Your task to perform on an android device: Play the last video I watched on Youtube Image 0: 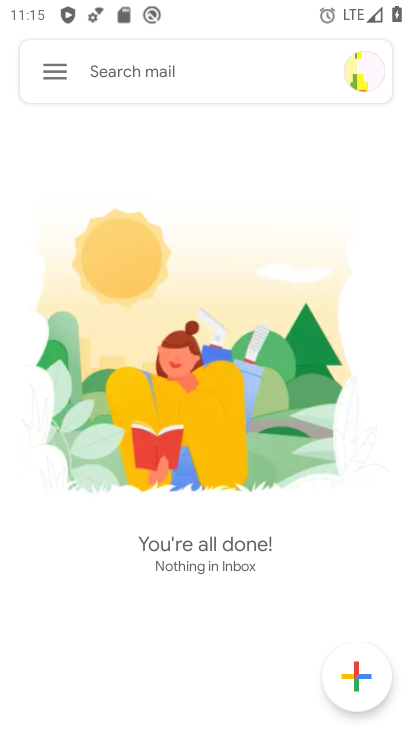
Step 0: press home button
Your task to perform on an android device: Play the last video I watched on Youtube Image 1: 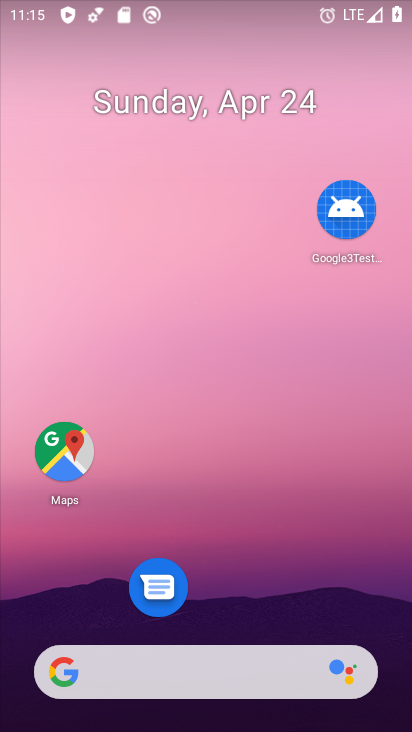
Step 1: drag from (361, 573) to (238, 32)
Your task to perform on an android device: Play the last video I watched on Youtube Image 2: 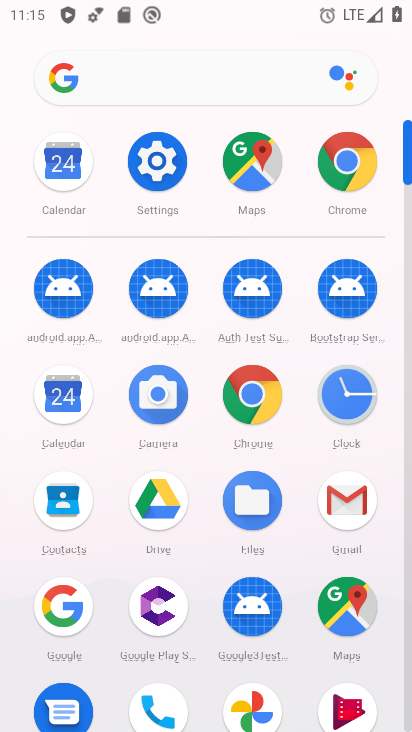
Step 2: drag from (212, 643) to (200, 207)
Your task to perform on an android device: Play the last video I watched on Youtube Image 3: 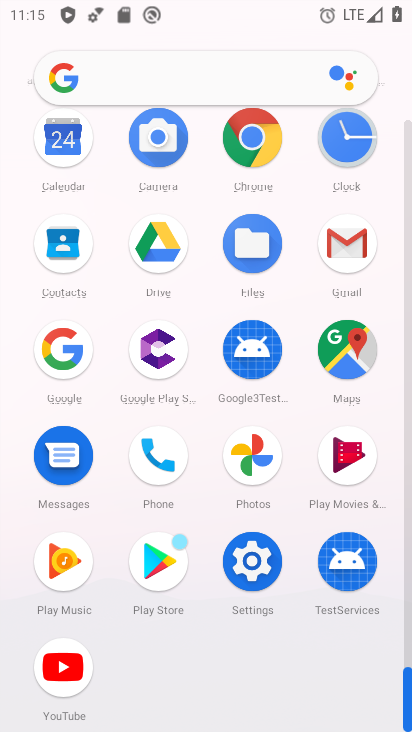
Step 3: click (69, 673)
Your task to perform on an android device: Play the last video I watched on Youtube Image 4: 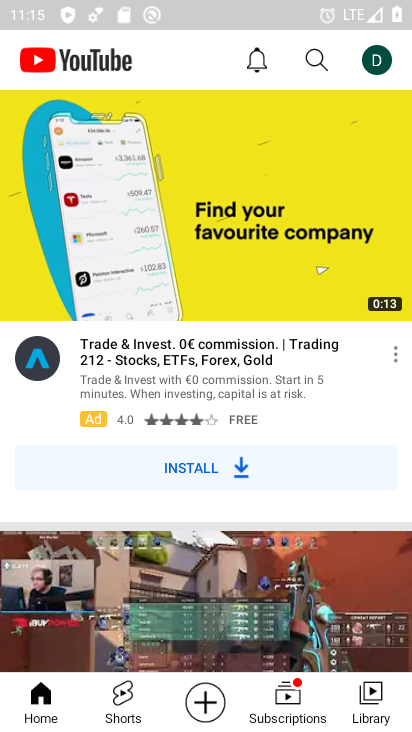
Step 4: click (370, 693)
Your task to perform on an android device: Play the last video I watched on Youtube Image 5: 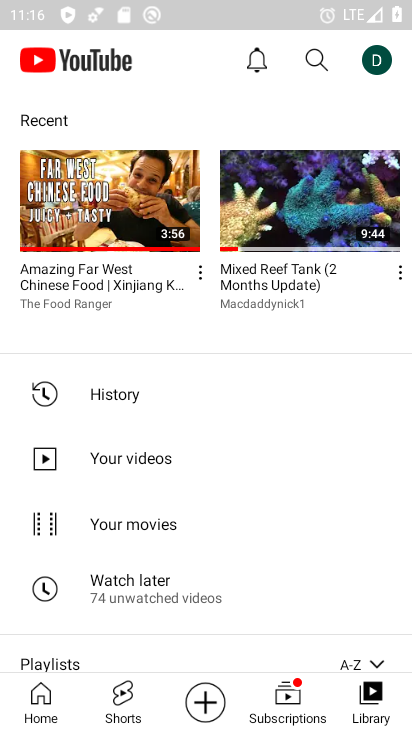
Step 5: click (147, 215)
Your task to perform on an android device: Play the last video I watched on Youtube Image 6: 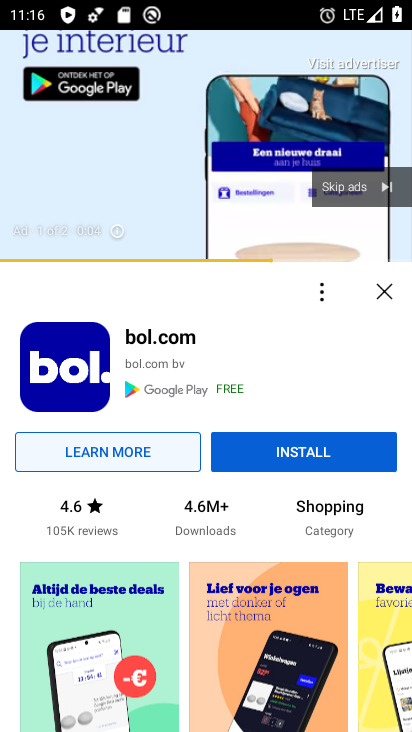
Step 6: click (370, 191)
Your task to perform on an android device: Play the last video I watched on Youtube Image 7: 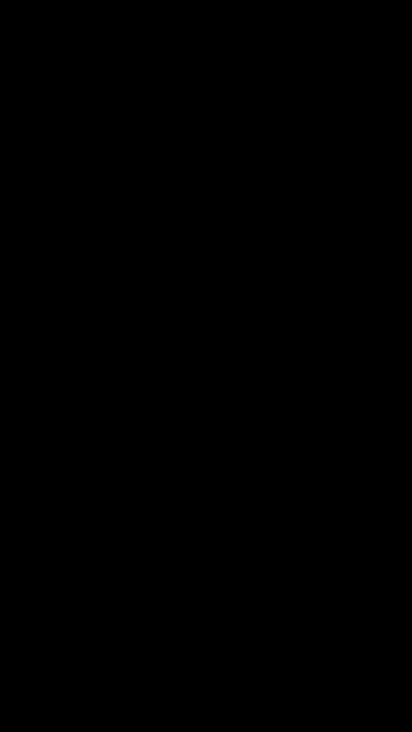
Step 7: task complete